Your task to perform on an android device: Go to wifi settings Image 0: 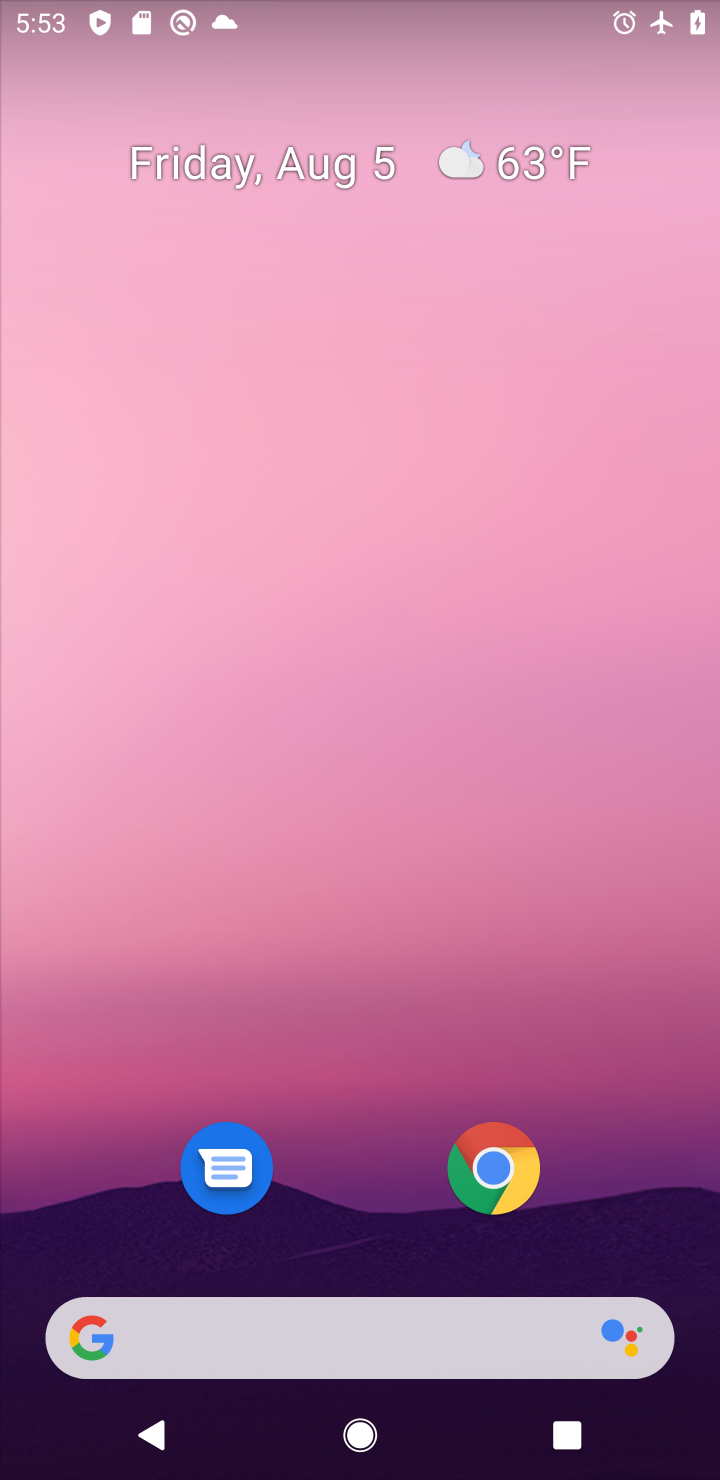
Step 0: press home button
Your task to perform on an android device: Go to wifi settings Image 1: 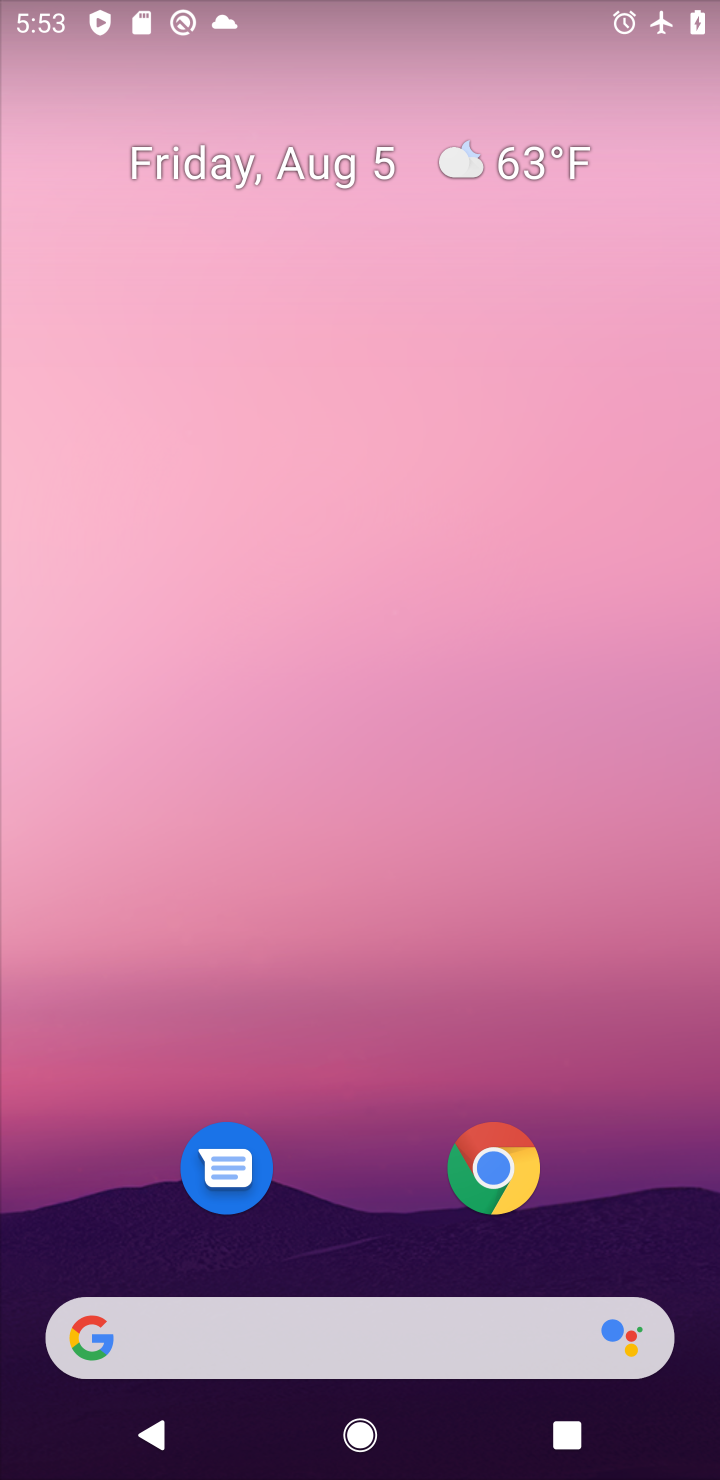
Step 1: drag from (386, 230) to (414, 1031)
Your task to perform on an android device: Go to wifi settings Image 2: 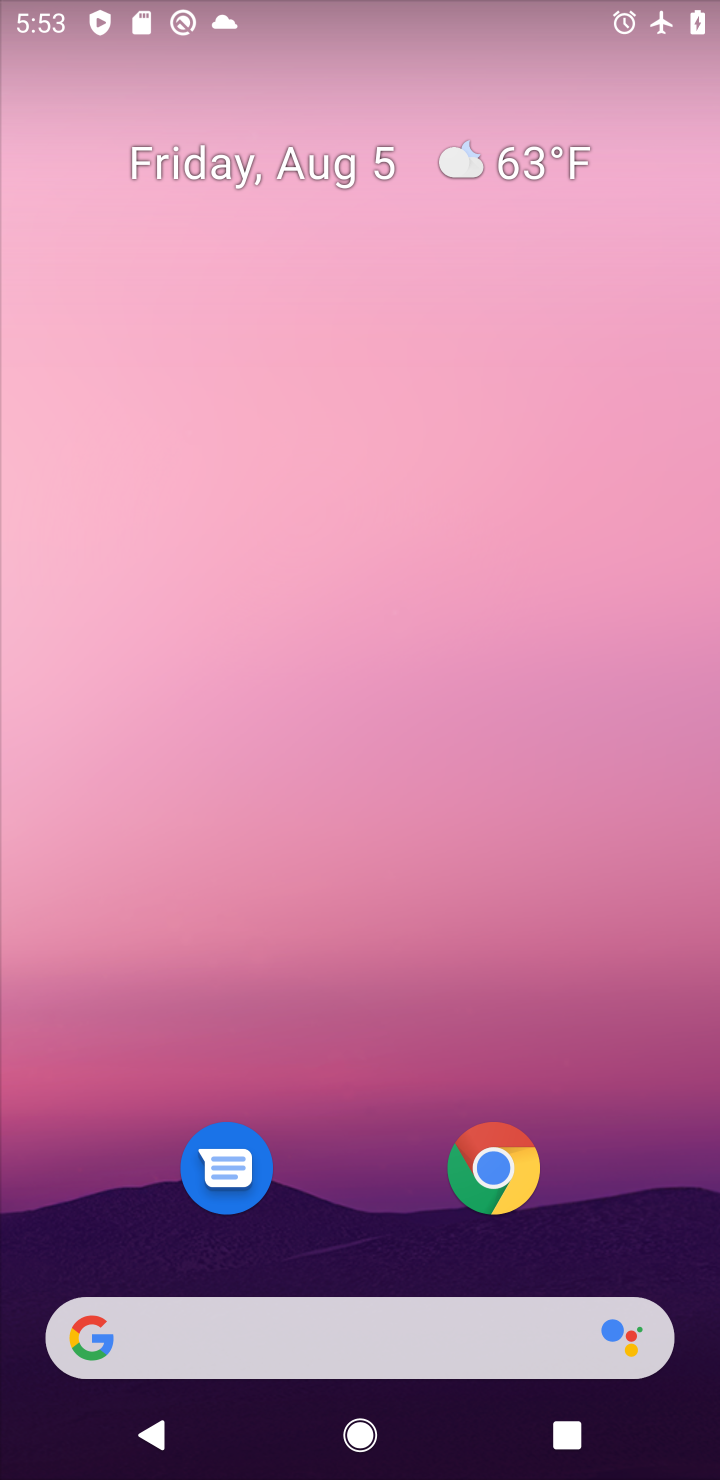
Step 2: drag from (437, 1127) to (431, 87)
Your task to perform on an android device: Go to wifi settings Image 3: 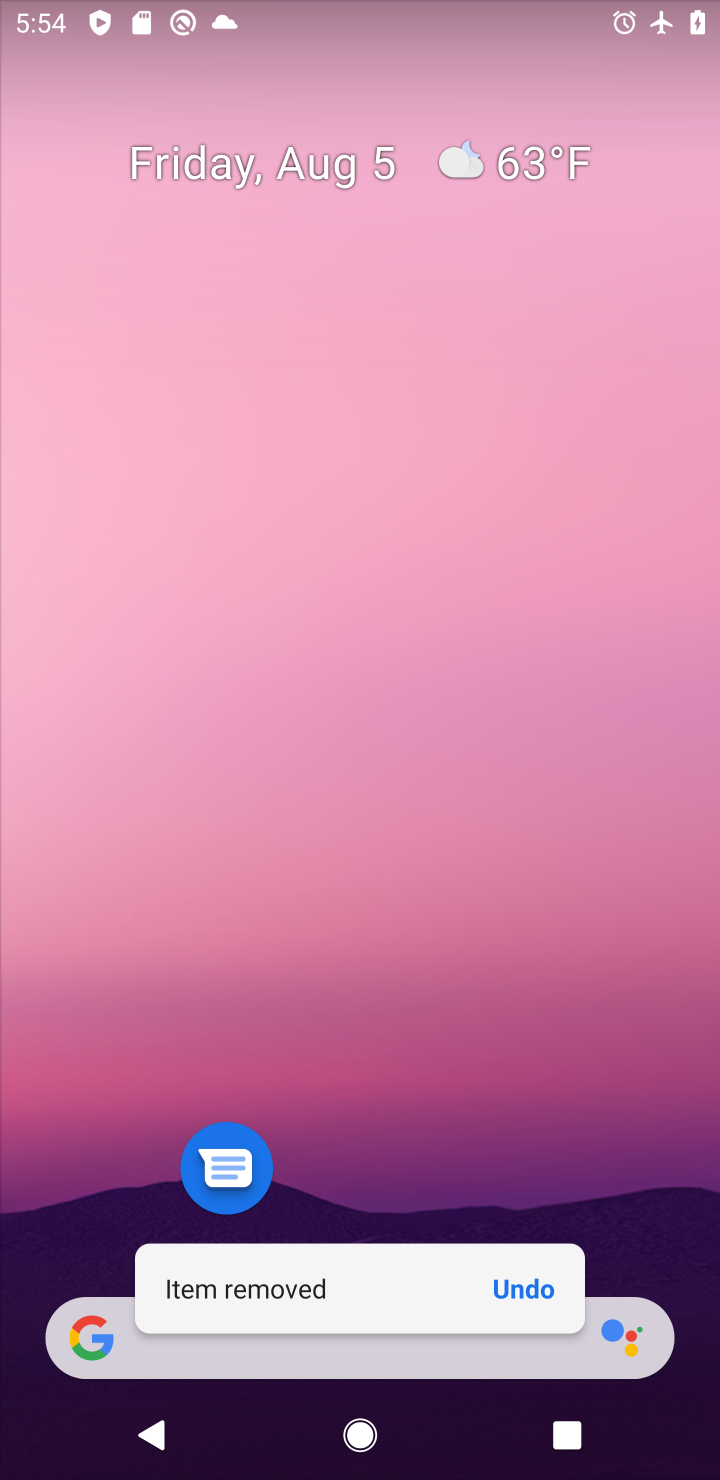
Step 3: click (470, 1169)
Your task to perform on an android device: Go to wifi settings Image 4: 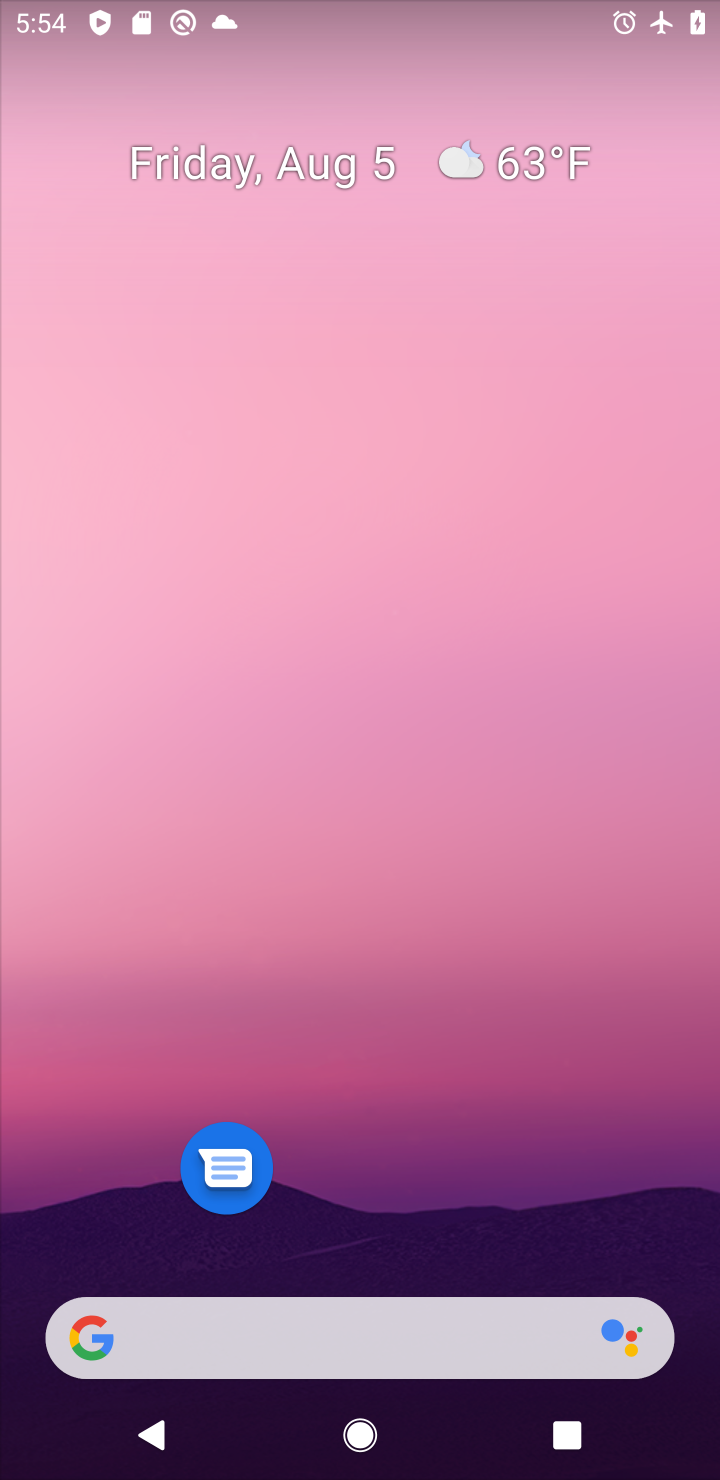
Step 4: drag from (377, 1213) to (395, 170)
Your task to perform on an android device: Go to wifi settings Image 5: 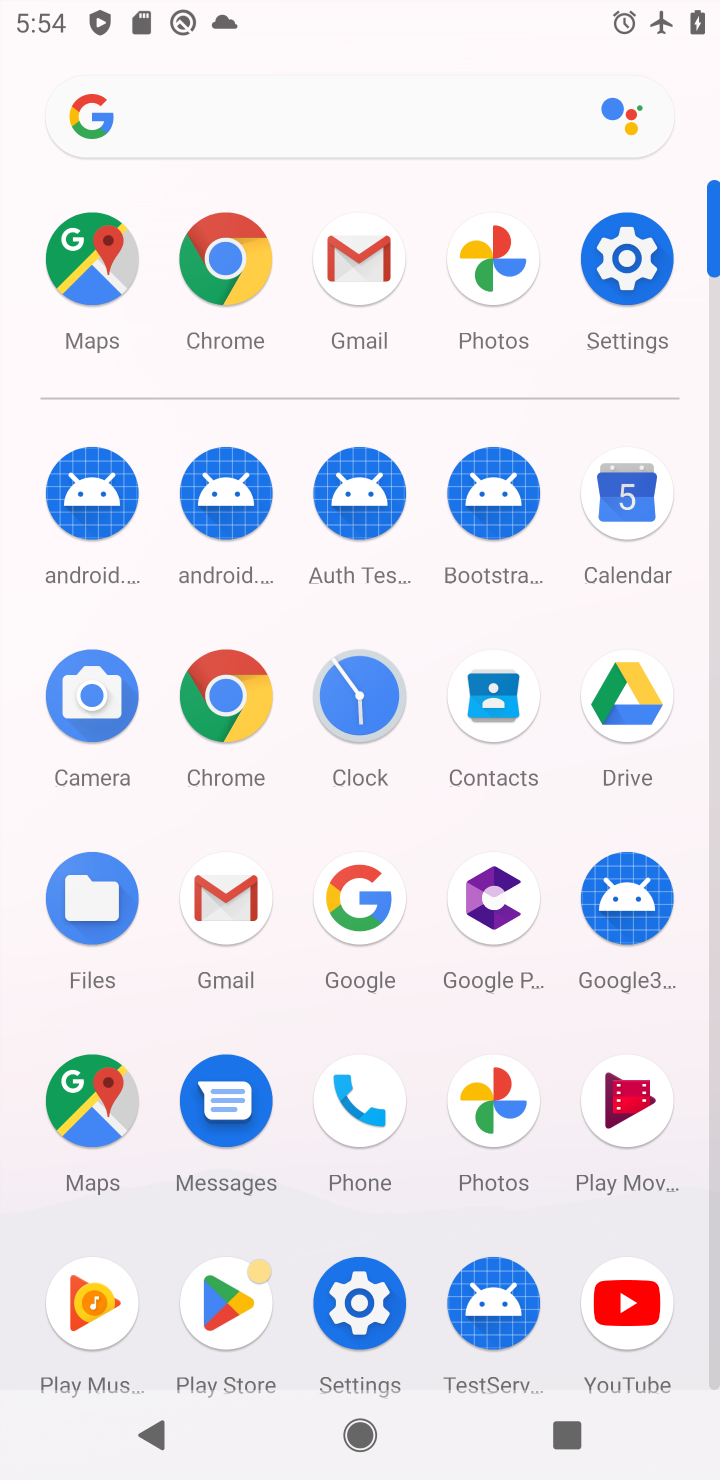
Step 5: click (634, 1444)
Your task to perform on an android device: Go to wifi settings Image 6: 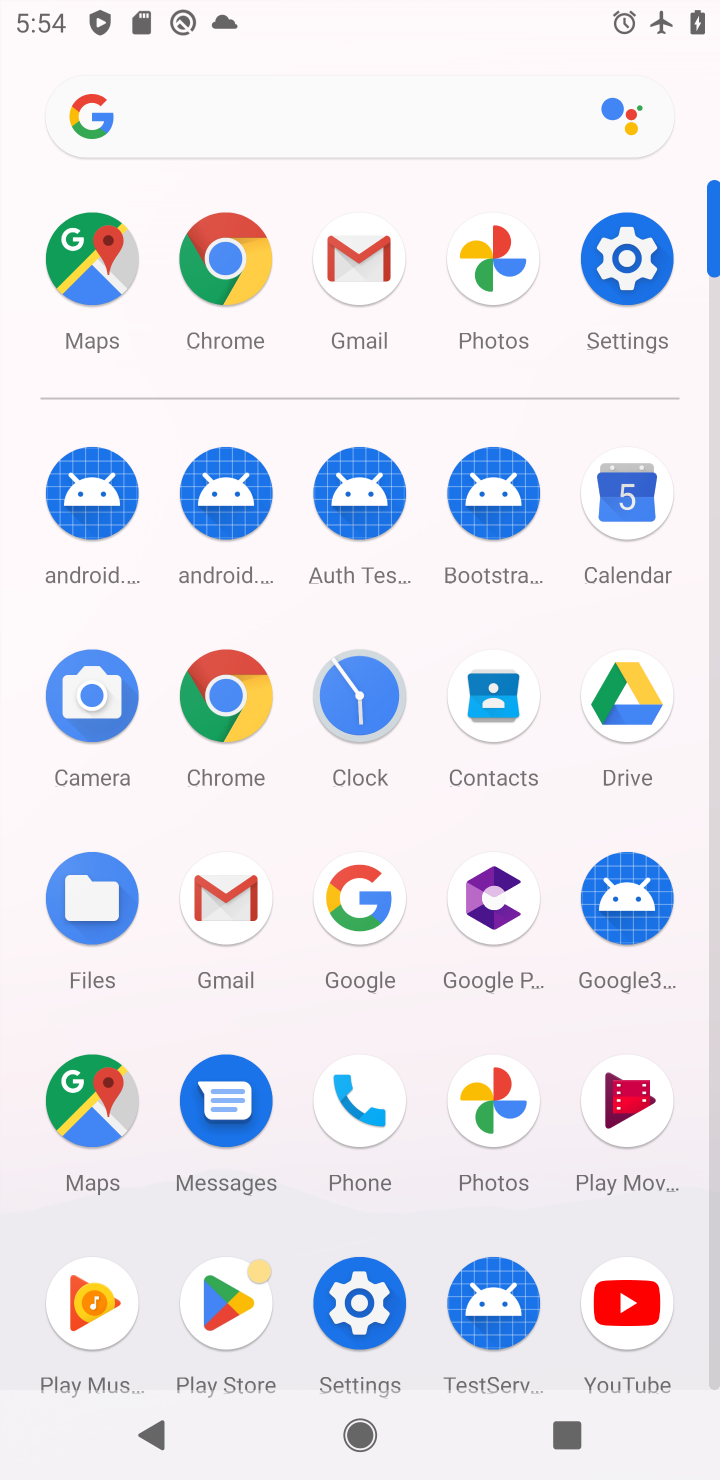
Step 6: click (641, 261)
Your task to perform on an android device: Go to wifi settings Image 7: 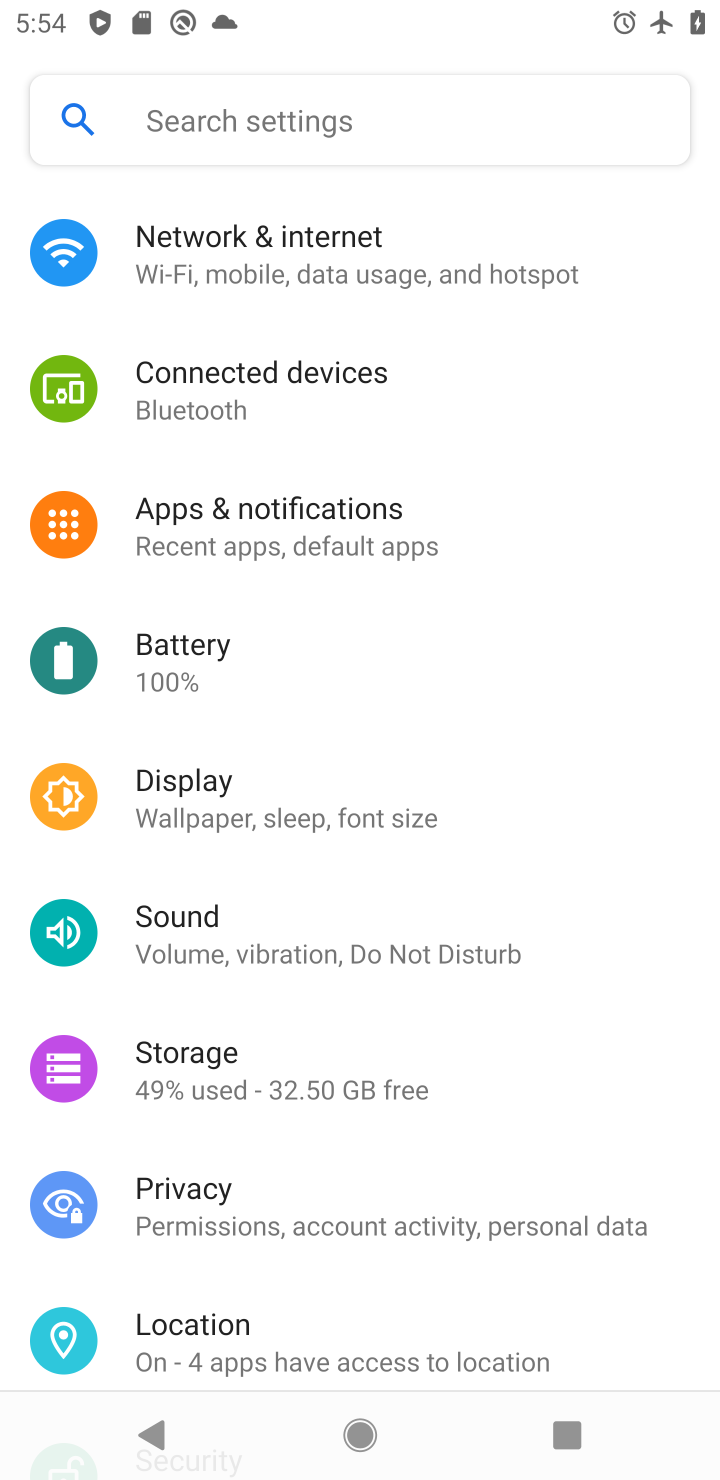
Step 7: click (266, 269)
Your task to perform on an android device: Go to wifi settings Image 8: 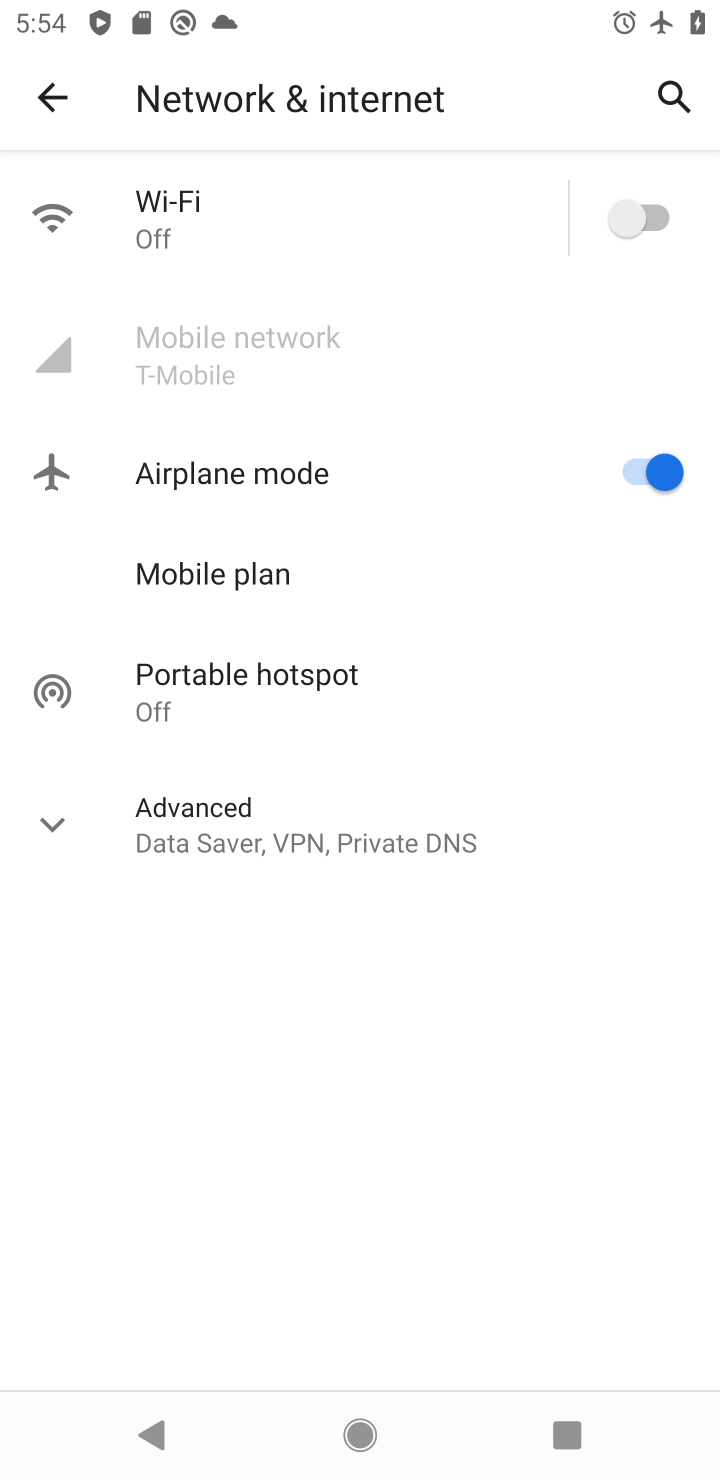
Step 8: click (164, 225)
Your task to perform on an android device: Go to wifi settings Image 9: 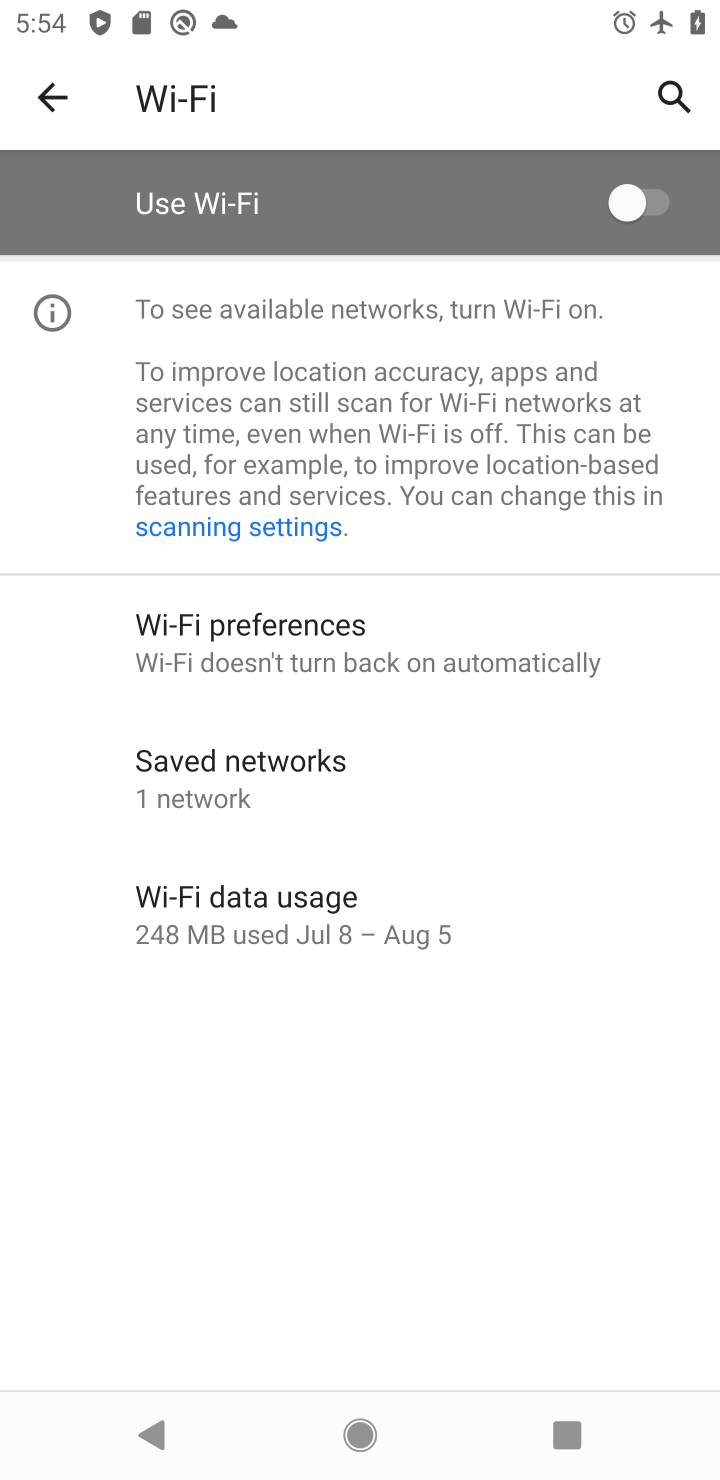
Step 9: click (636, 224)
Your task to perform on an android device: Go to wifi settings Image 10: 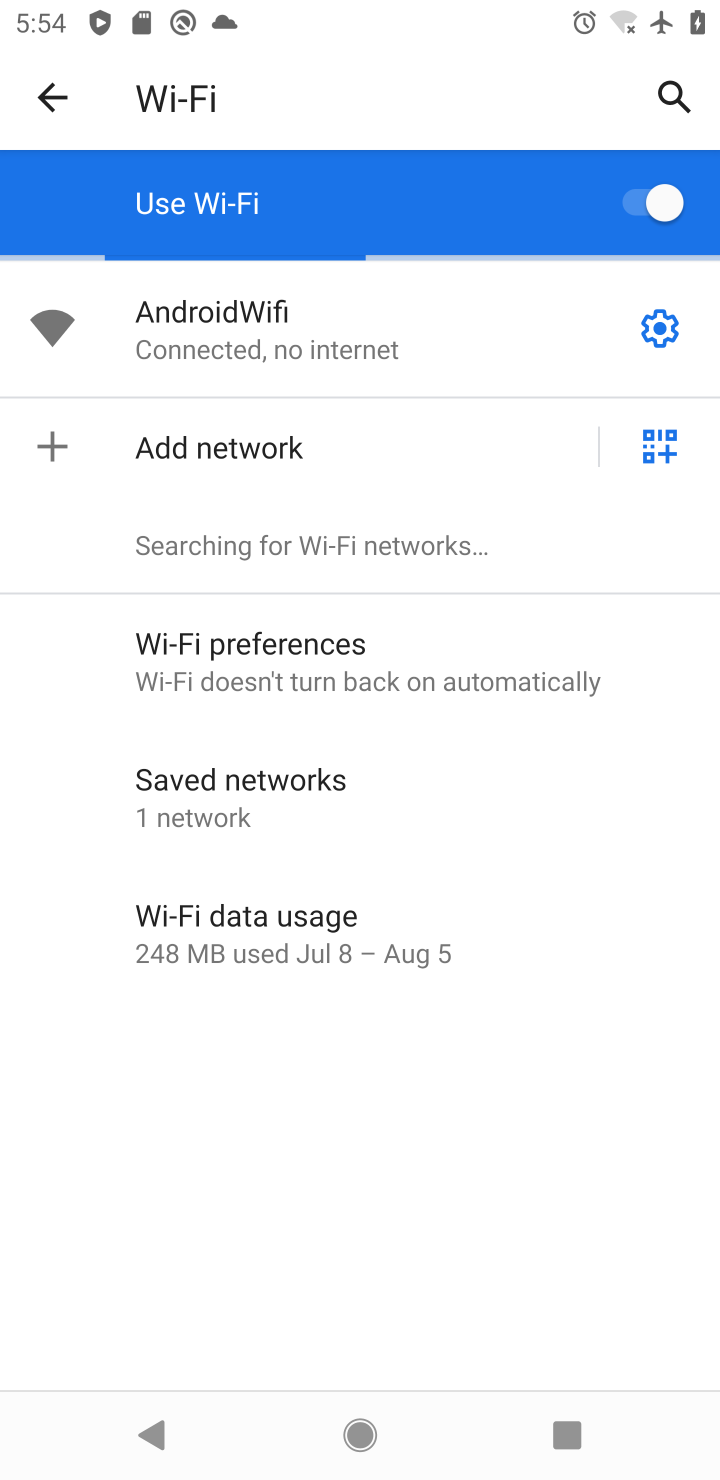
Step 10: click (214, 329)
Your task to perform on an android device: Go to wifi settings Image 11: 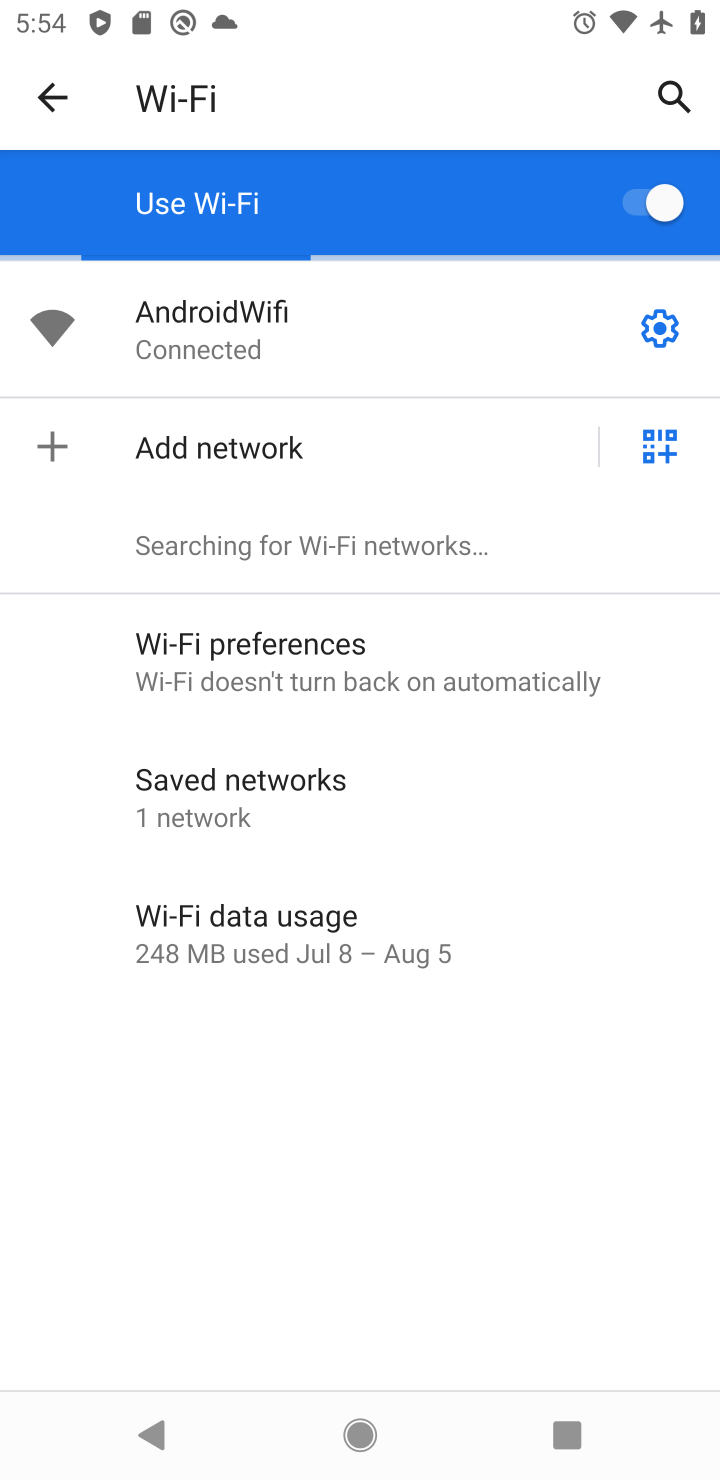
Step 11: click (200, 327)
Your task to perform on an android device: Go to wifi settings Image 12: 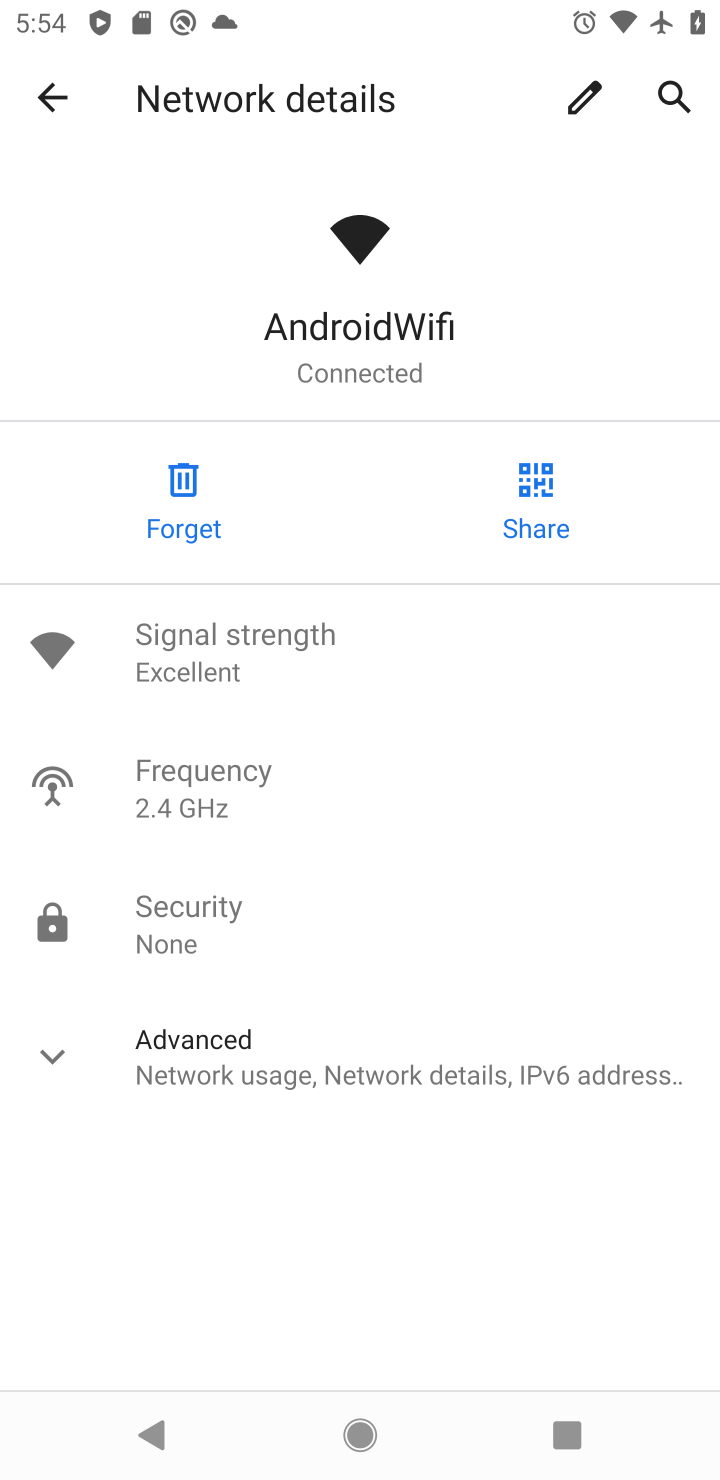
Step 12: task complete